Your task to perform on an android device: move a message to another label in the gmail app Image 0: 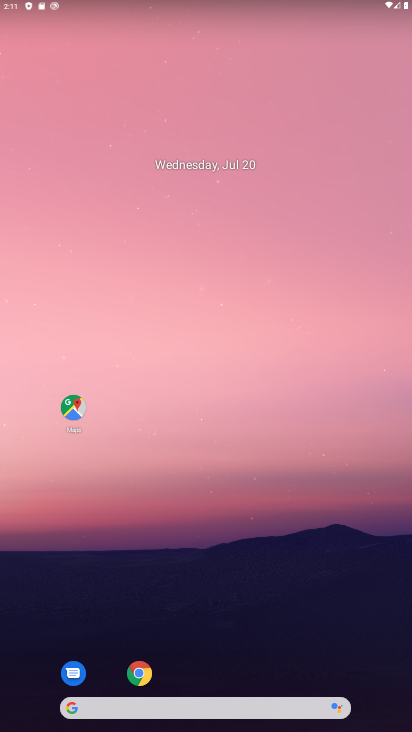
Step 0: drag from (217, 695) to (198, 132)
Your task to perform on an android device: move a message to another label in the gmail app Image 1: 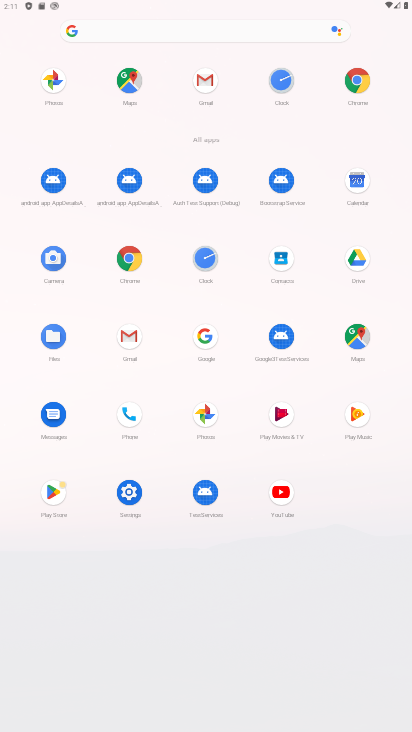
Step 1: click (129, 337)
Your task to perform on an android device: move a message to another label in the gmail app Image 2: 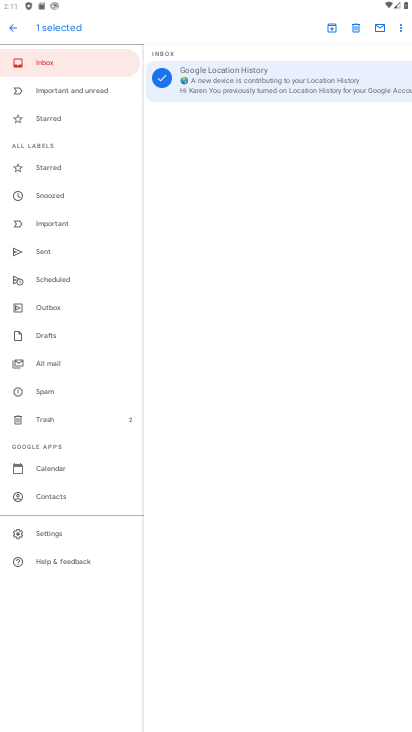
Step 2: click (399, 26)
Your task to perform on an android device: move a message to another label in the gmail app Image 3: 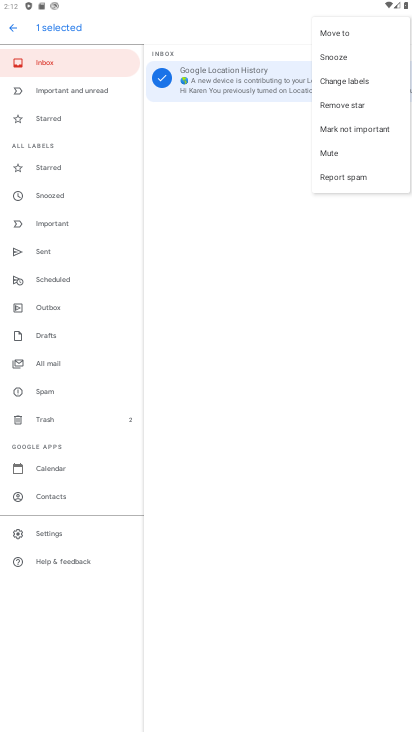
Step 3: click (346, 34)
Your task to perform on an android device: move a message to another label in the gmail app Image 4: 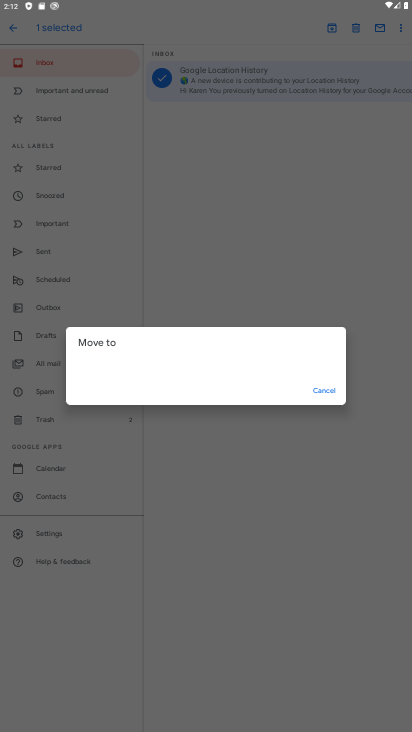
Step 4: click (319, 392)
Your task to perform on an android device: move a message to another label in the gmail app Image 5: 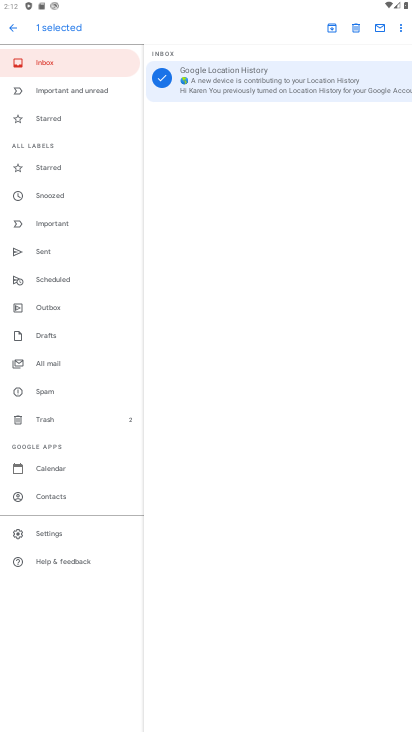
Step 5: task complete